Your task to perform on an android device: turn off airplane mode Image 0: 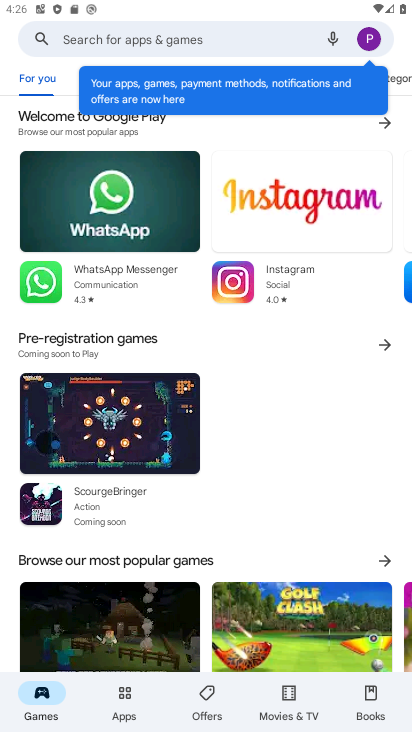
Step 0: press home button
Your task to perform on an android device: turn off airplane mode Image 1: 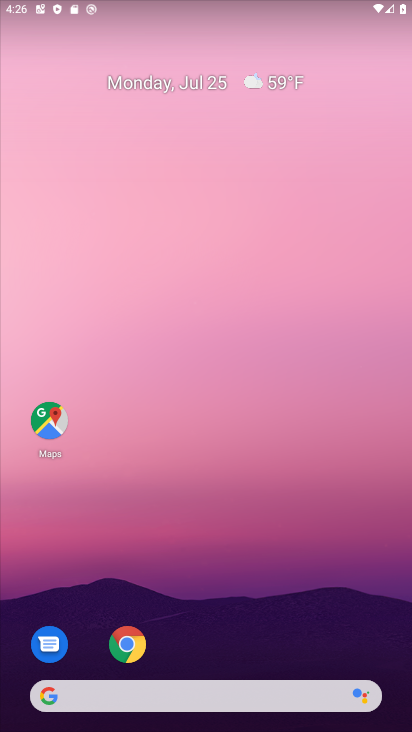
Step 1: drag from (248, 680) to (254, 116)
Your task to perform on an android device: turn off airplane mode Image 2: 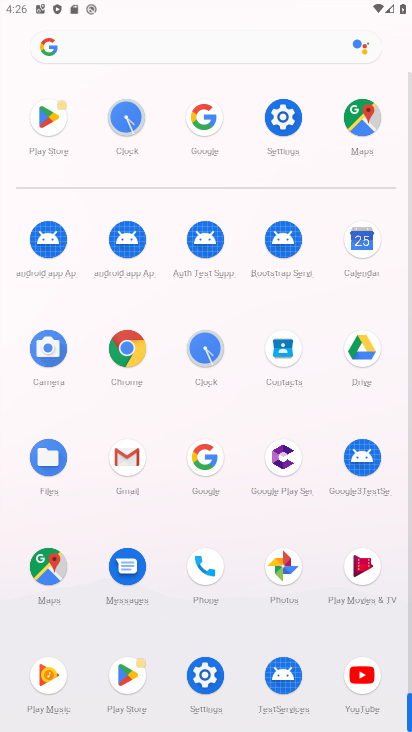
Step 2: click (279, 132)
Your task to perform on an android device: turn off airplane mode Image 3: 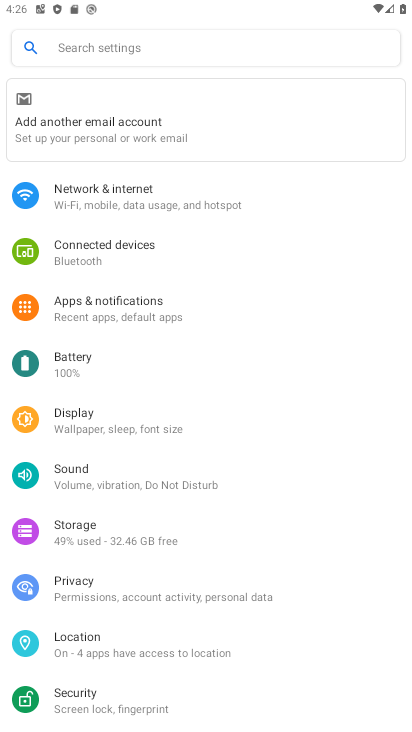
Step 3: click (176, 196)
Your task to perform on an android device: turn off airplane mode Image 4: 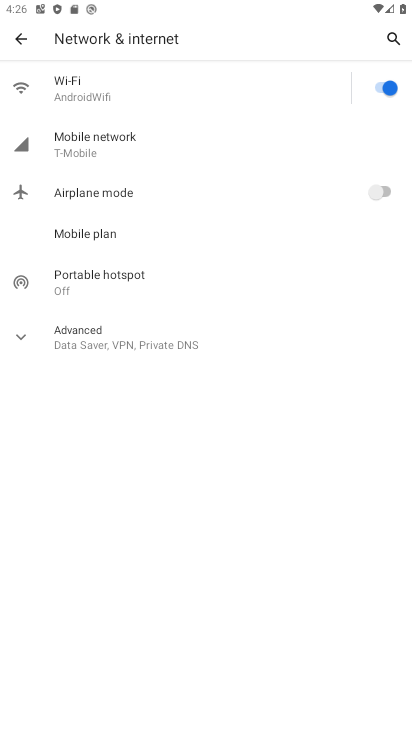
Step 4: click (144, 143)
Your task to perform on an android device: turn off airplane mode Image 5: 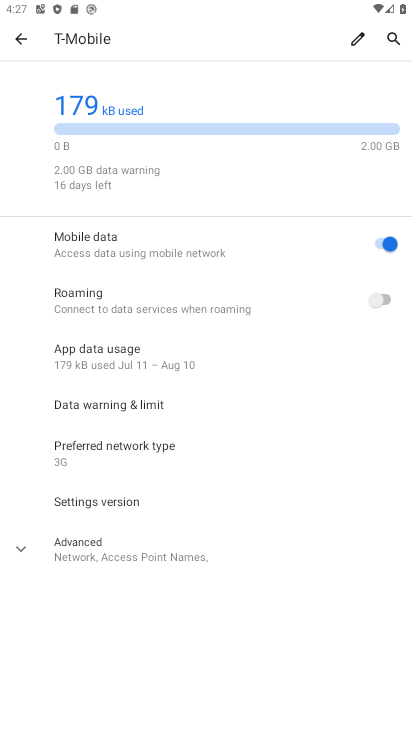
Step 5: click (13, 43)
Your task to perform on an android device: turn off airplane mode Image 6: 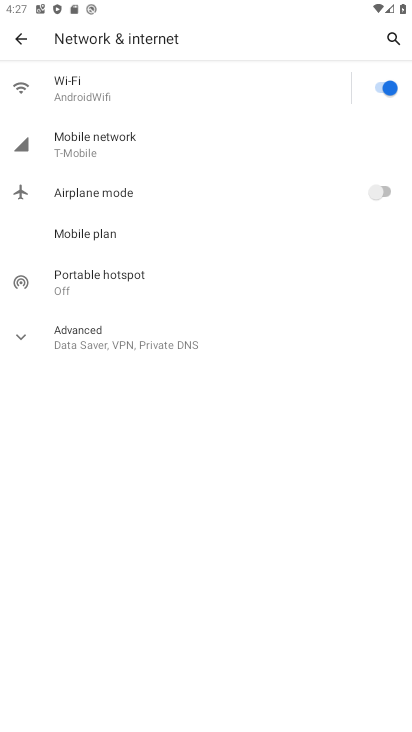
Step 6: task complete